Your task to perform on an android device: Clear the cart on costco.com. Add dell xps to the cart on costco.com Image 0: 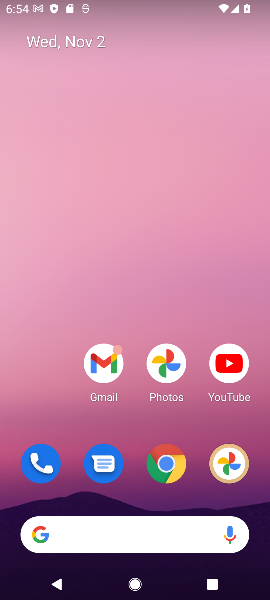
Step 0: click (164, 465)
Your task to perform on an android device: Clear the cart on costco.com. Add dell xps to the cart on costco.com Image 1: 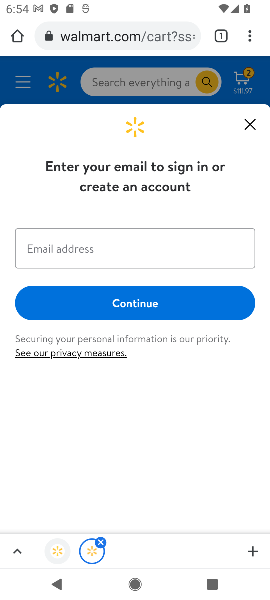
Step 1: click (109, 39)
Your task to perform on an android device: Clear the cart on costco.com. Add dell xps to the cart on costco.com Image 2: 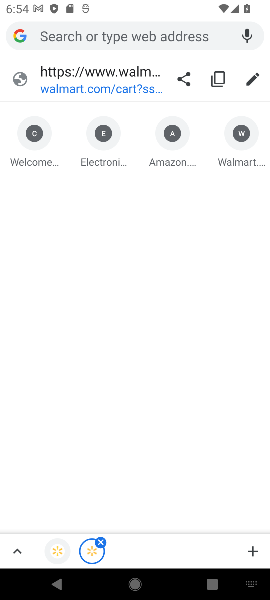
Step 2: type "costco.com"
Your task to perform on an android device: Clear the cart on costco.com. Add dell xps to the cart on costco.com Image 3: 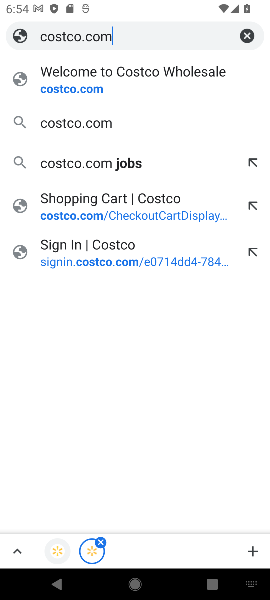
Step 3: click (60, 90)
Your task to perform on an android device: Clear the cart on costco.com. Add dell xps to the cart on costco.com Image 4: 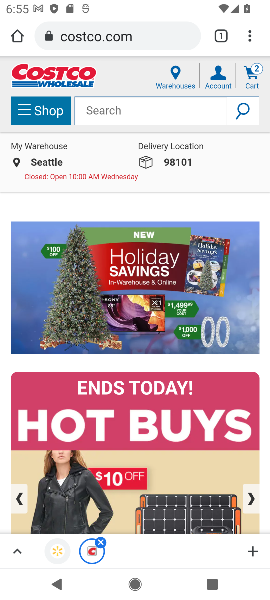
Step 4: click (251, 81)
Your task to perform on an android device: Clear the cart on costco.com. Add dell xps to the cart on costco.com Image 5: 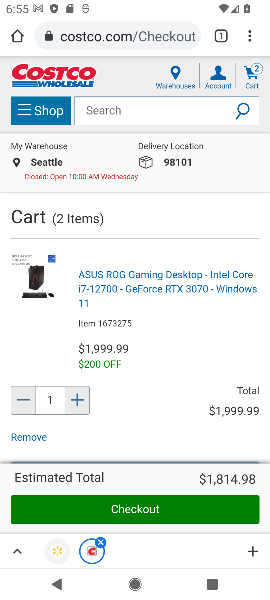
Step 5: click (34, 440)
Your task to perform on an android device: Clear the cart on costco.com. Add dell xps to the cart on costco.com Image 6: 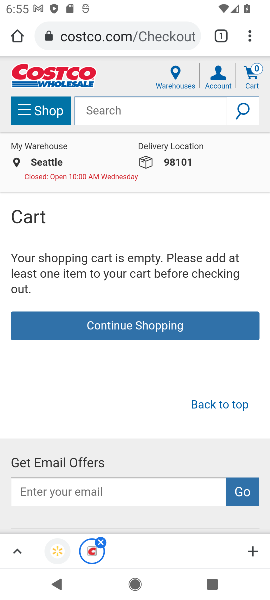
Step 6: click (131, 109)
Your task to perform on an android device: Clear the cart on costco.com. Add dell xps to the cart on costco.com Image 7: 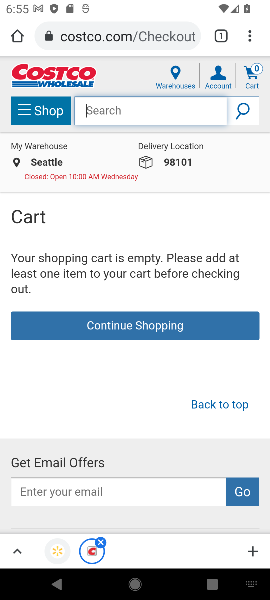
Step 7: type "dell xps"
Your task to perform on an android device: Clear the cart on costco.com. Add dell xps to the cart on costco.com Image 8: 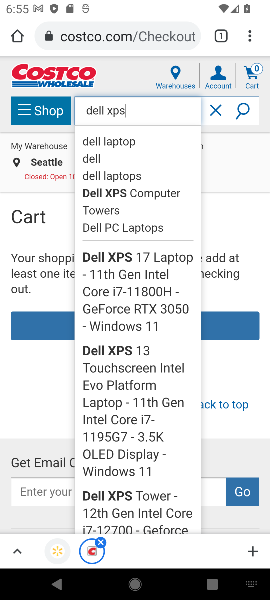
Step 8: click (239, 116)
Your task to perform on an android device: Clear the cart on costco.com. Add dell xps to the cart on costco.com Image 9: 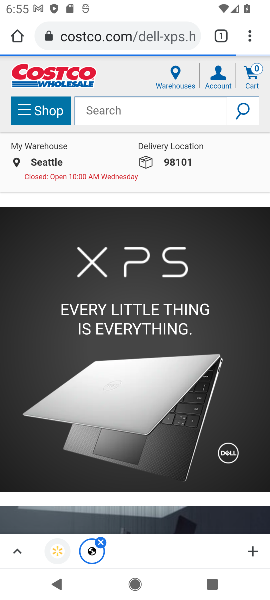
Step 9: task complete